Your task to perform on an android device: make emails show in primary in the gmail app Image 0: 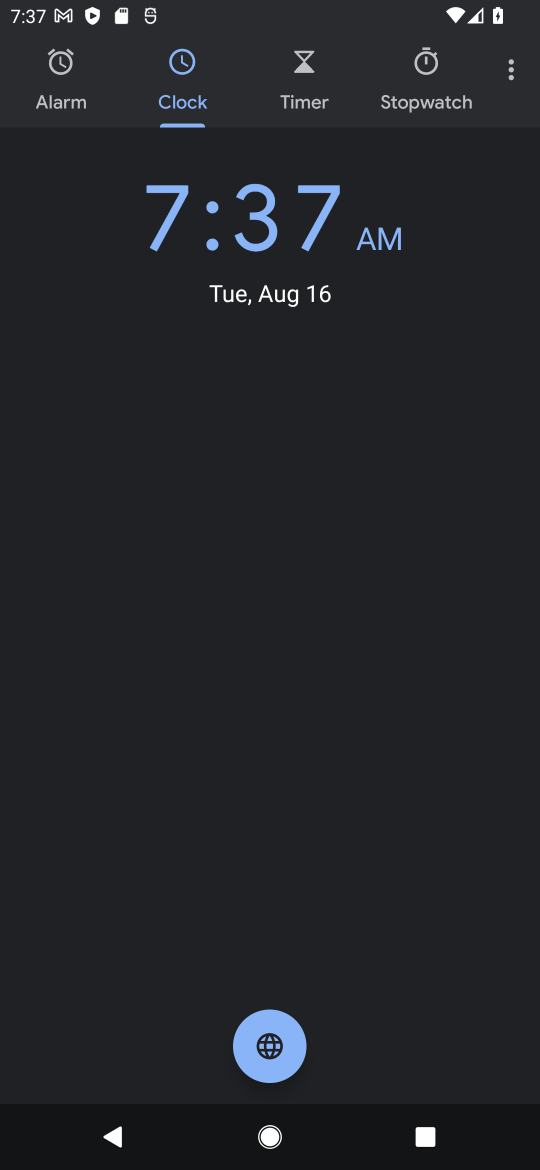
Step 0: press home button
Your task to perform on an android device: make emails show in primary in the gmail app Image 1: 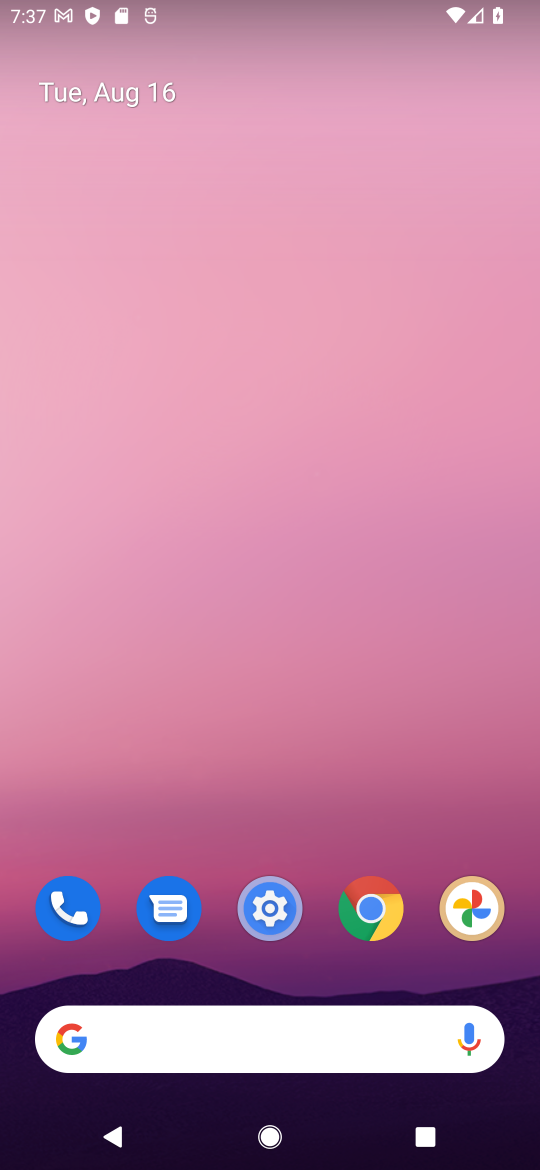
Step 1: drag from (281, 879) to (302, 2)
Your task to perform on an android device: make emails show in primary in the gmail app Image 2: 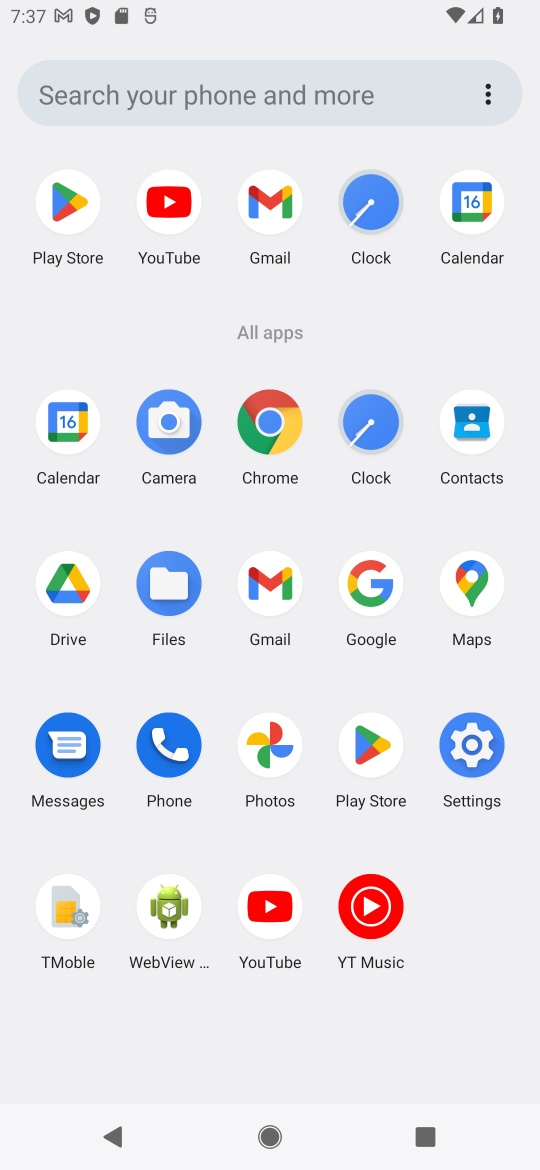
Step 2: click (271, 209)
Your task to perform on an android device: make emails show in primary in the gmail app Image 3: 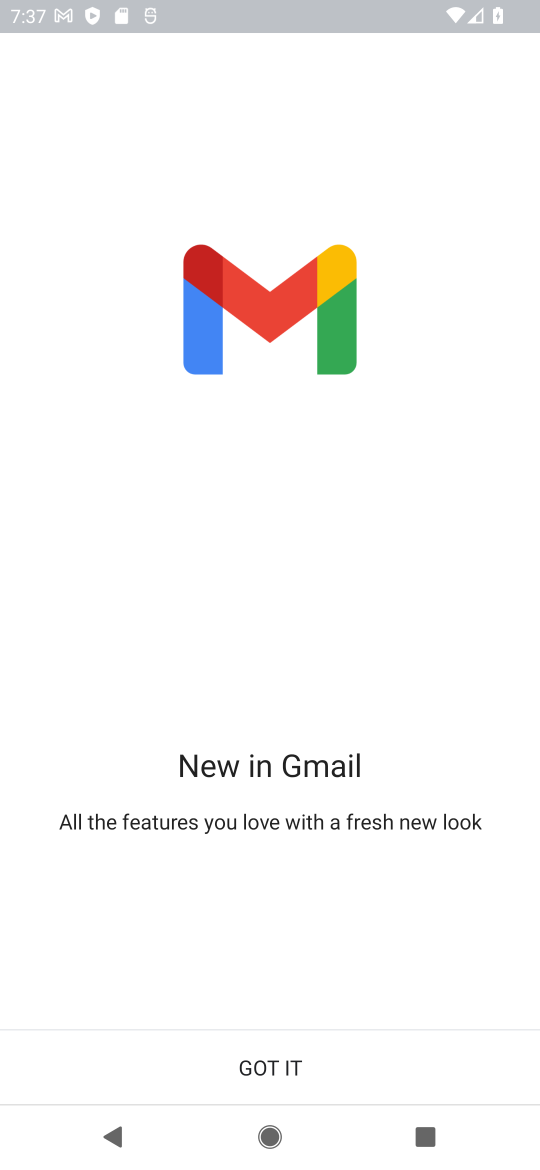
Step 3: click (259, 1073)
Your task to perform on an android device: make emails show in primary in the gmail app Image 4: 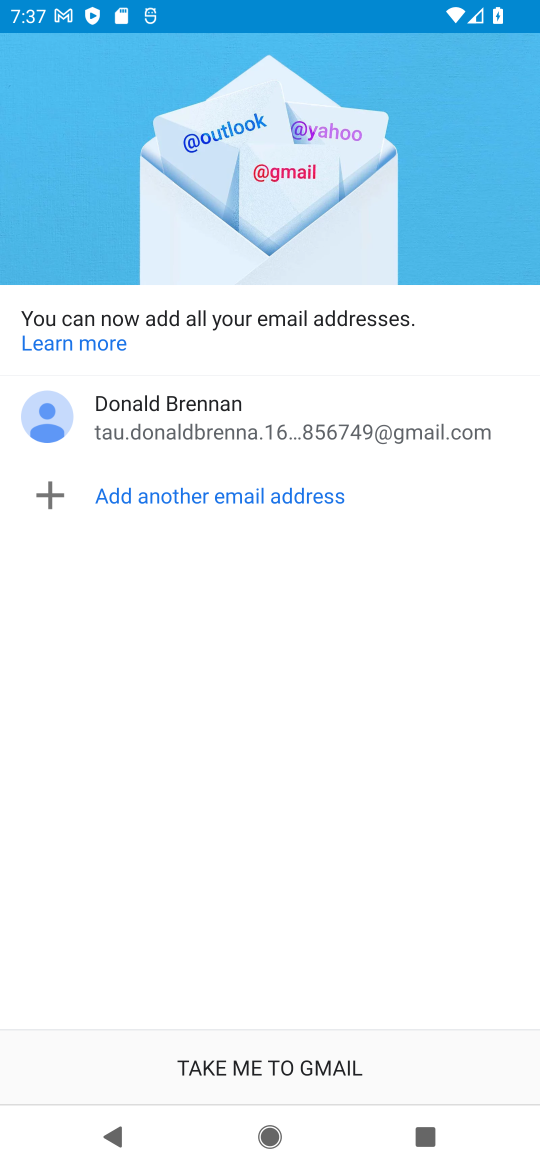
Step 4: click (259, 1073)
Your task to perform on an android device: make emails show in primary in the gmail app Image 5: 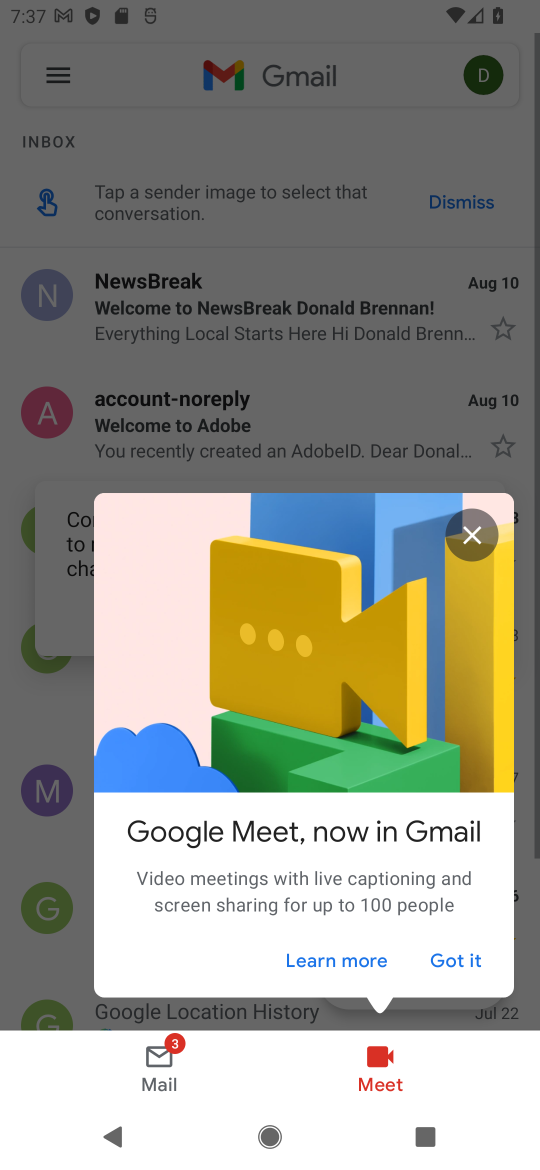
Step 5: click (481, 557)
Your task to perform on an android device: make emails show in primary in the gmail app Image 6: 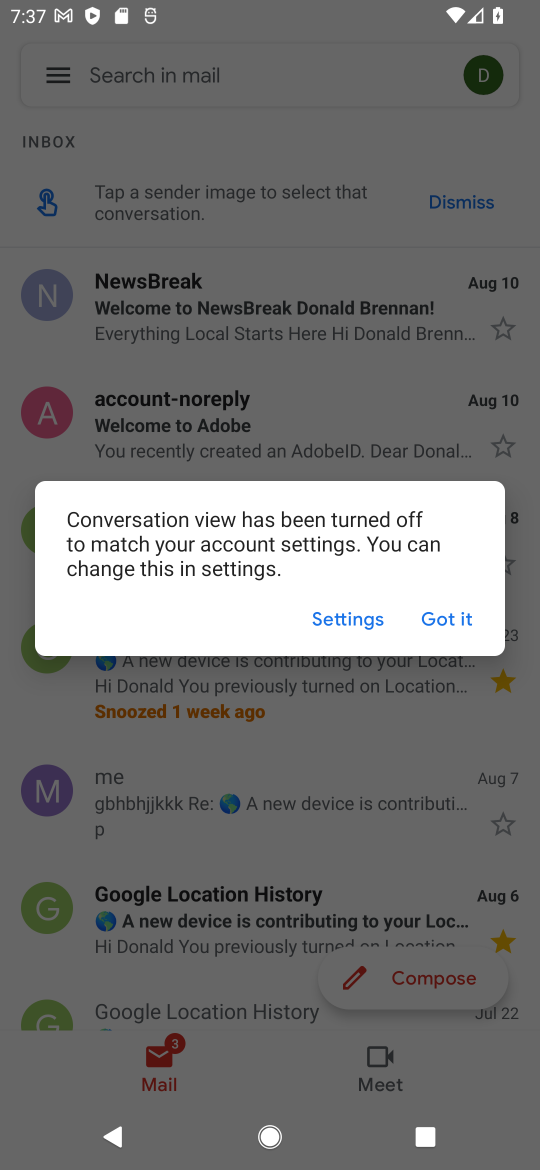
Step 6: click (469, 619)
Your task to perform on an android device: make emails show in primary in the gmail app Image 7: 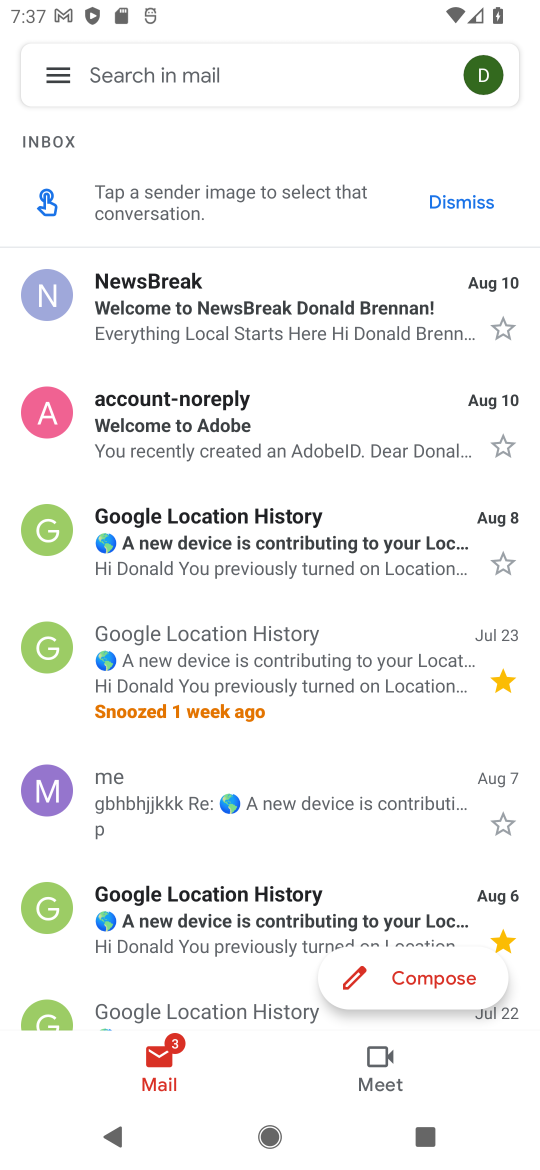
Step 7: click (56, 58)
Your task to perform on an android device: make emails show in primary in the gmail app Image 8: 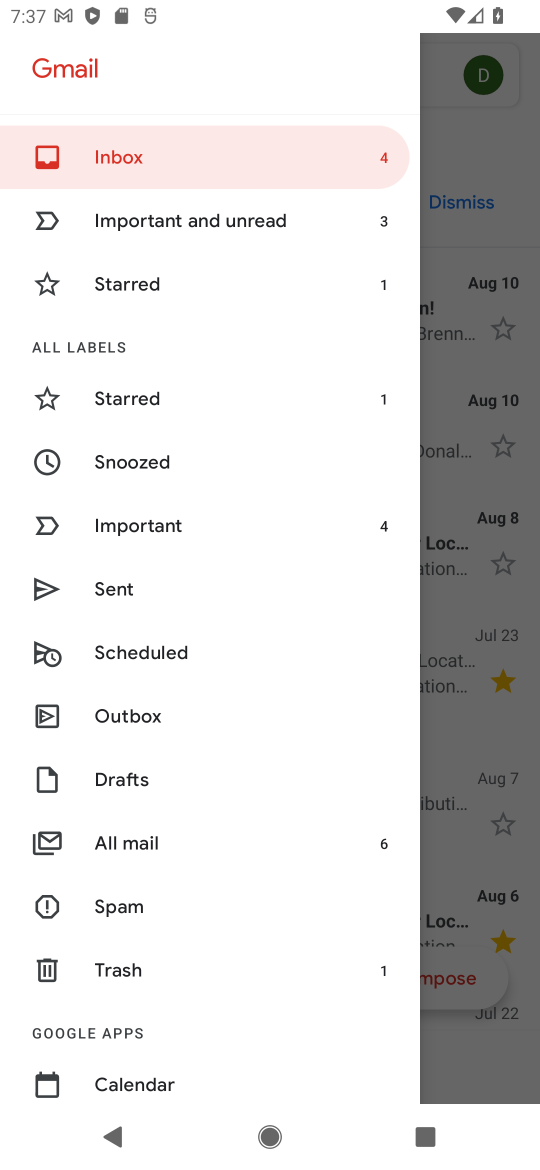
Step 8: drag from (239, 955) to (224, 376)
Your task to perform on an android device: make emails show in primary in the gmail app Image 9: 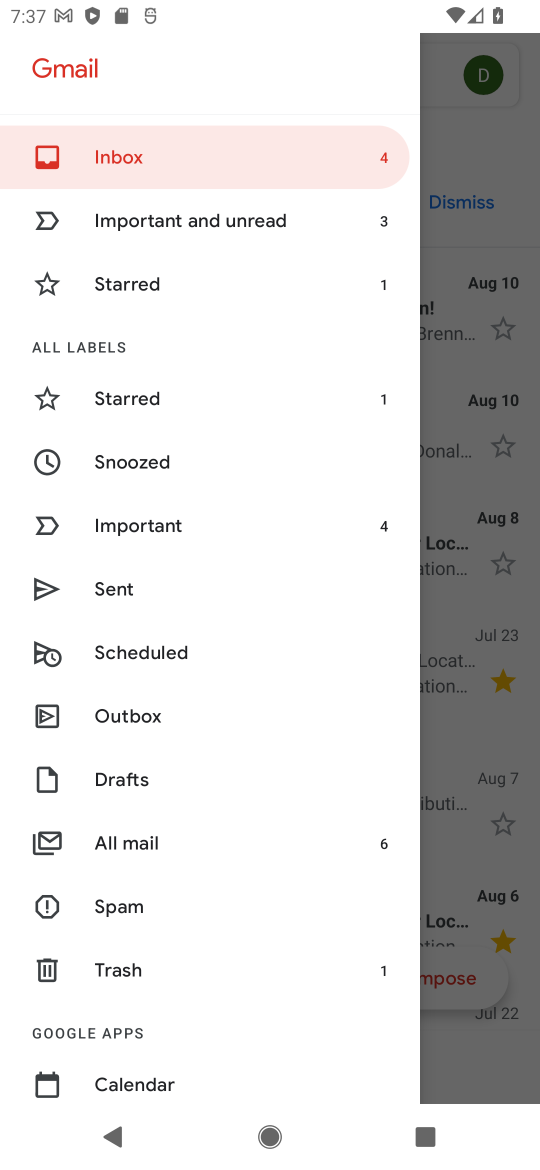
Step 9: click (169, 986)
Your task to perform on an android device: make emails show in primary in the gmail app Image 10: 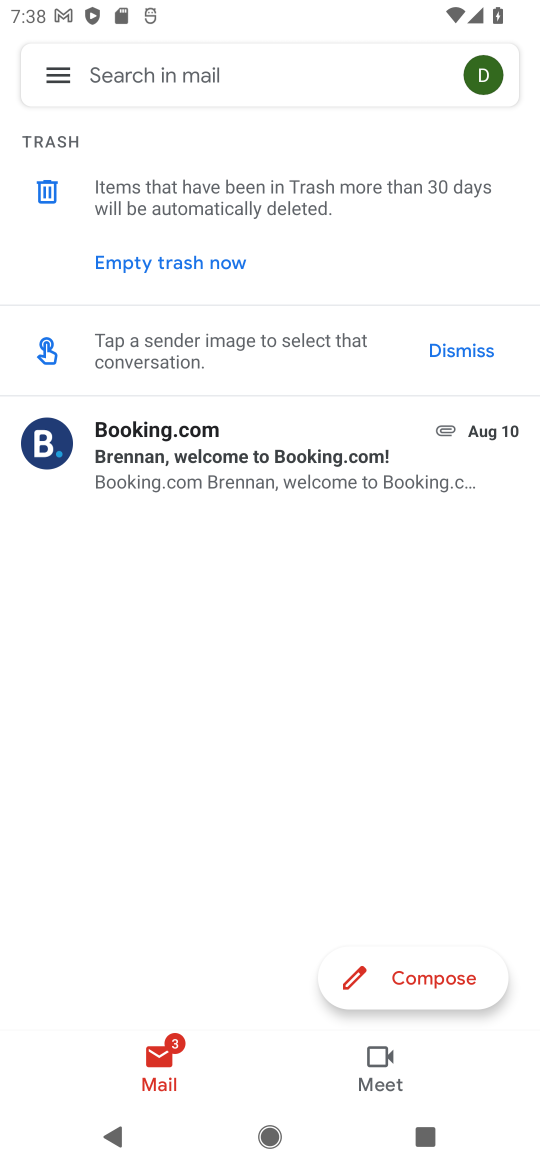
Step 10: press back button
Your task to perform on an android device: make emails show in primary in the gmail app Image 11: 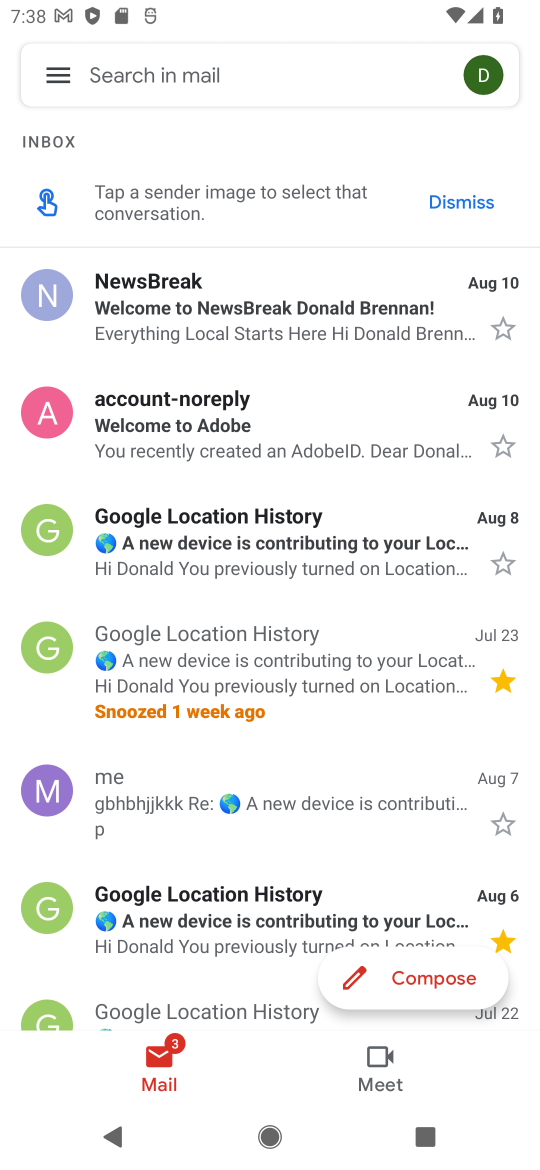
Step 11: click (41, 76)
Your task to perform on an android device: make emails show in primary in the gmail app Image 12: 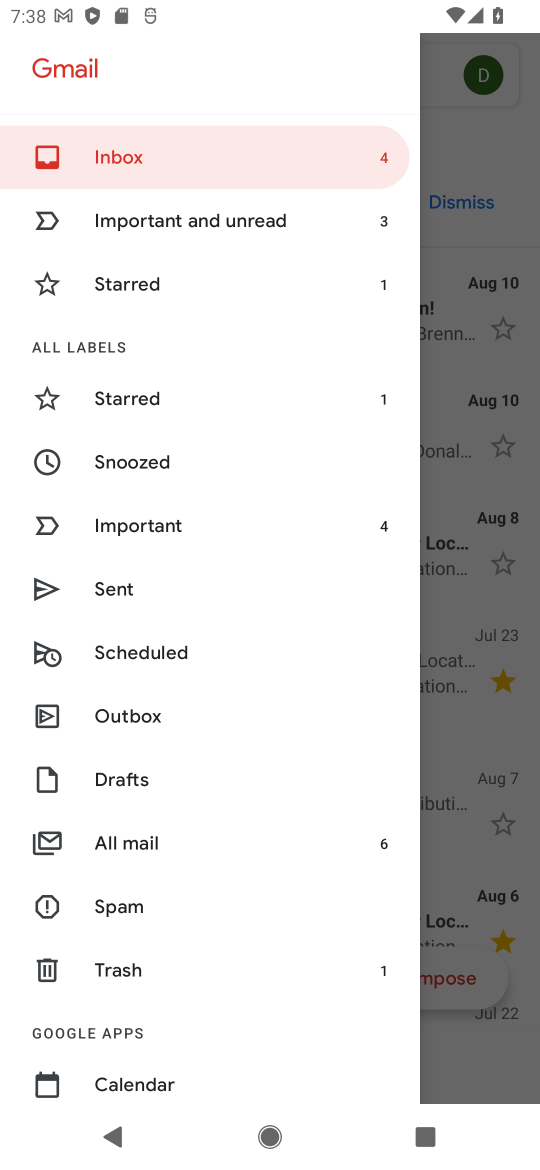
Step 12: drag from (136, 870) to (185, 66)
Your task to perform on an android device: make emails show in primary in the gmail app Image 13: 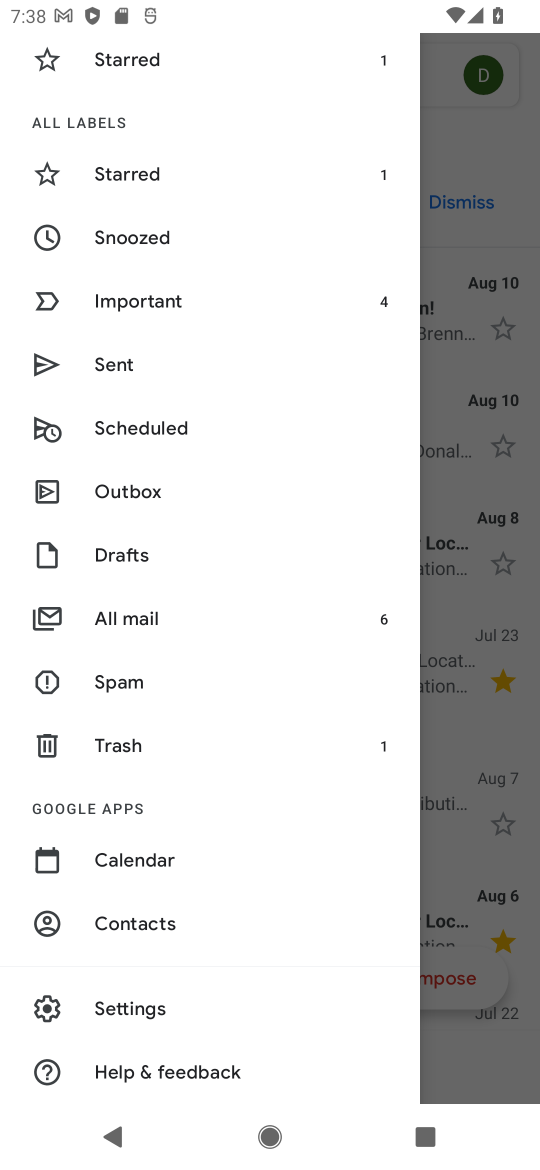
Step 13: click (137, 1022)
Your task to perform on an android device: make emails show in primary in the gmail app Image 14: 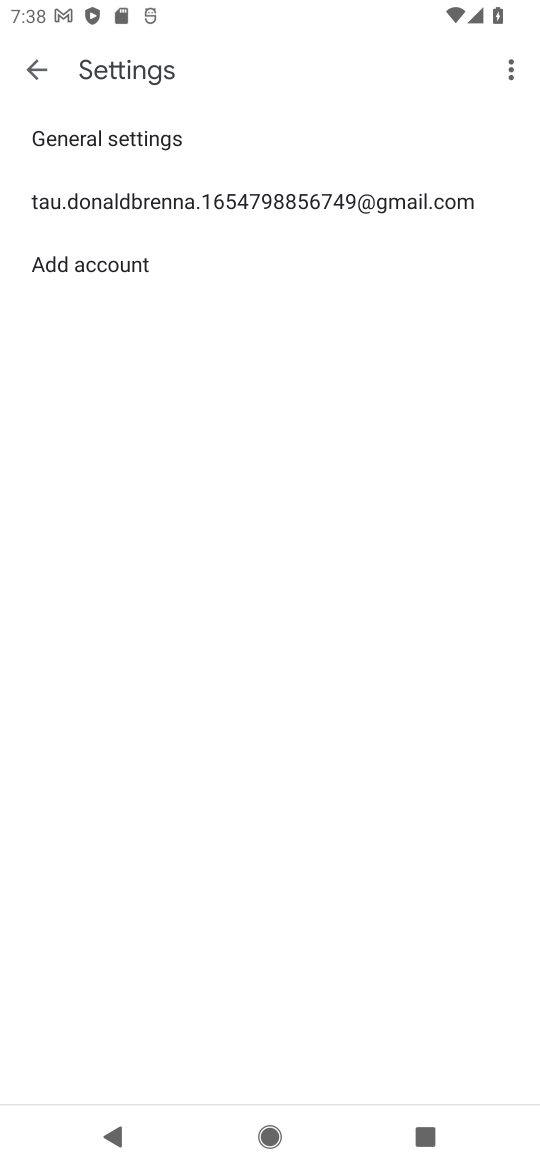
Step 14: click (322, 194)
Your task to perform on an android device: make emails show in primary in the gmail app Image 15: 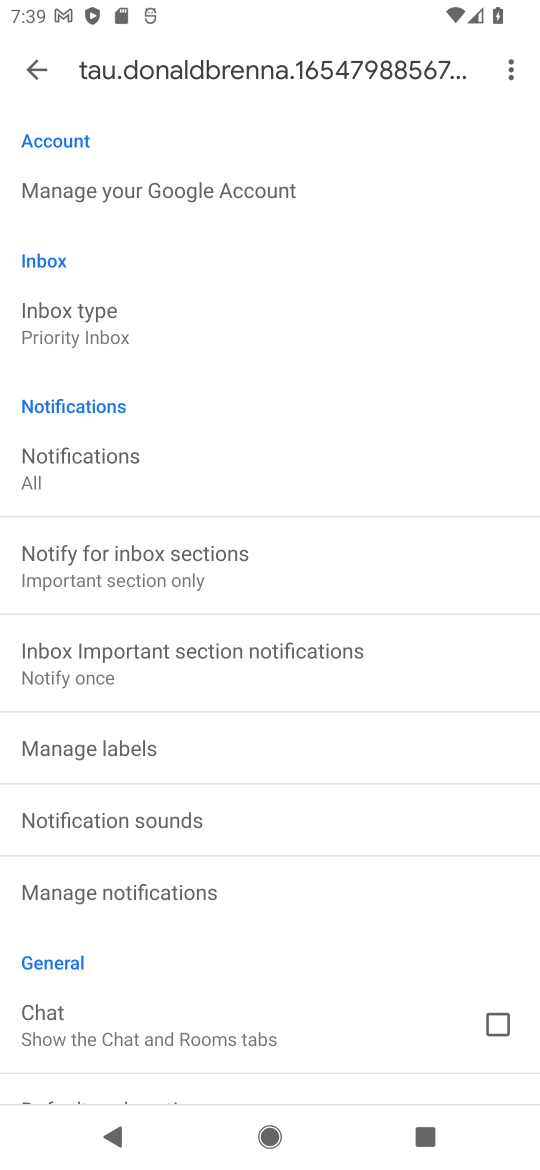
Step 15: task complete